Your task to perform on an android device: turn on translation in the chrome app Image 0: 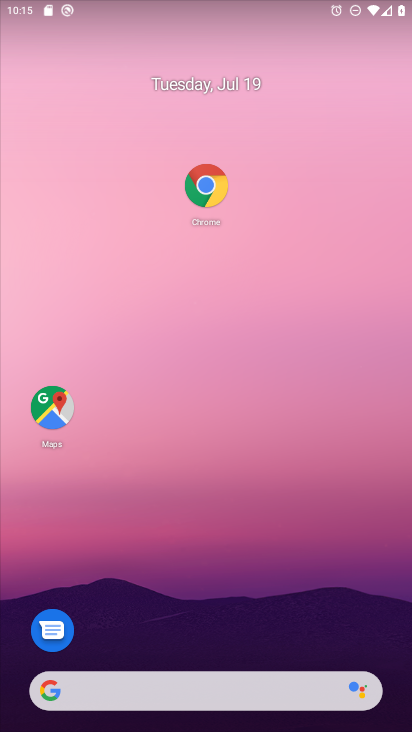
Step 0: drag from (124, 577) to (87, 139)
Your task to perform on an android device: turn on translation in the chrome app Image 1: 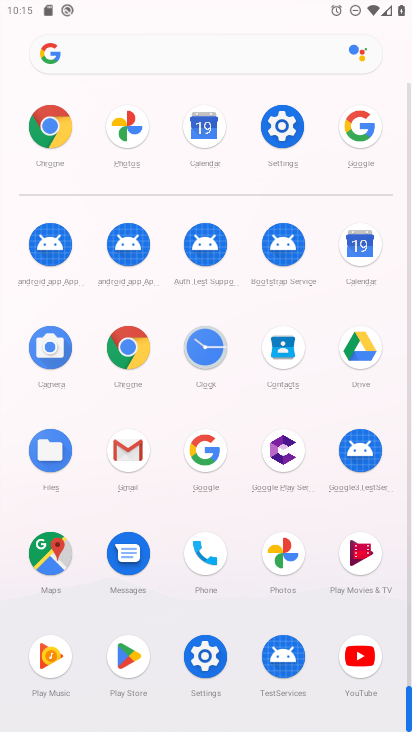
Step 1: click (133, 363)
Your task to perform on an android device: turn on translation in the chrome app Image 2: 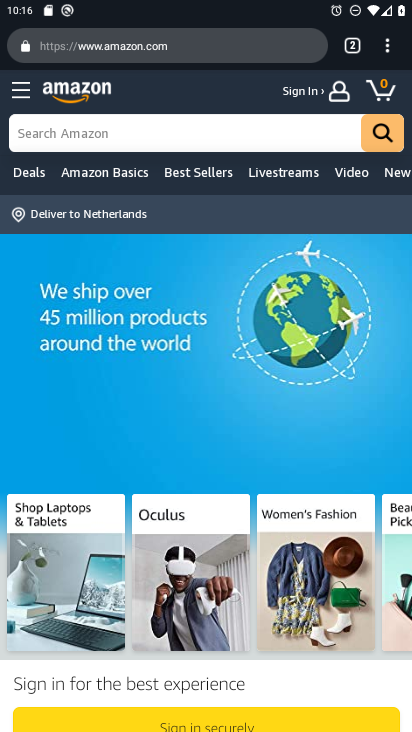
Step 2: click (384, 49)
Your task to perform on an android device: turn on translation in the chrome app Image 3: 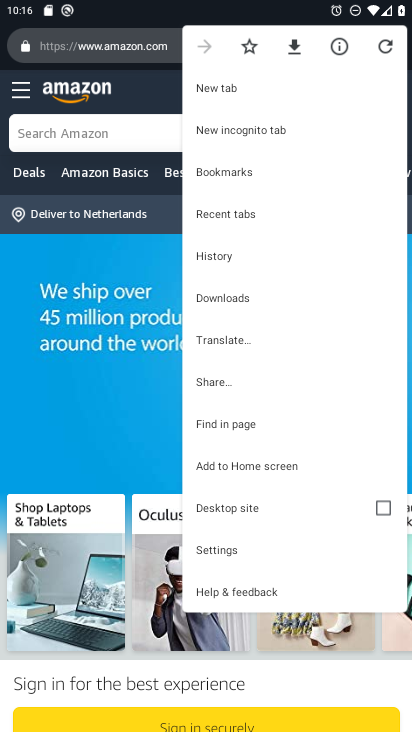
Step 3: click (261, 340)
Your task to perform on an android device: turn on translation in the chrome app Image 4: 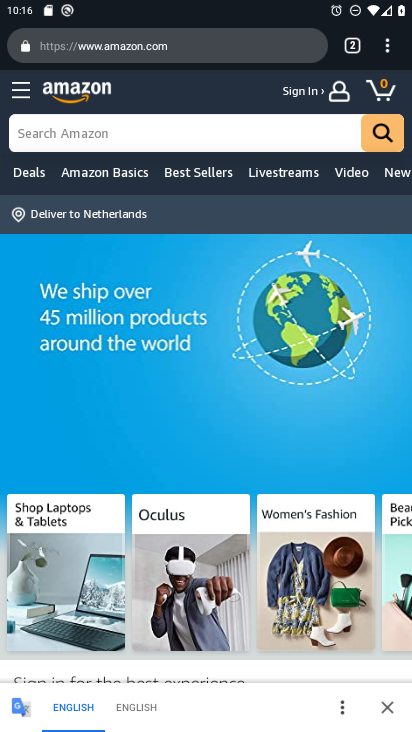
Step 4: click (337, 712)
Your task to perform on an android device: turn on translation in the chrome app Image 5: 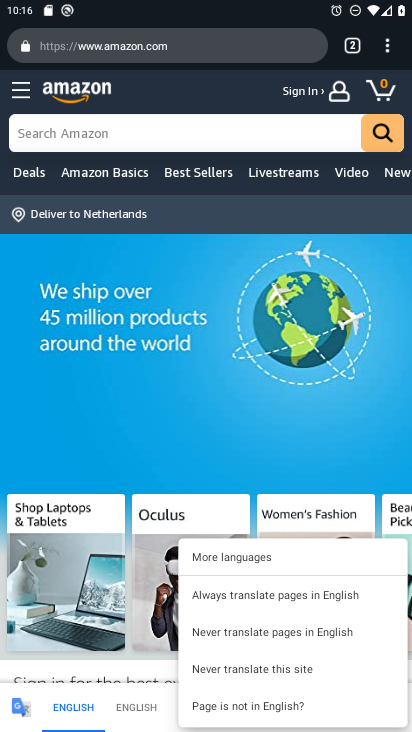
Step 5: click (262, 595)
Your task to perform on an android device: turn on translation in the chrome app Image 6: 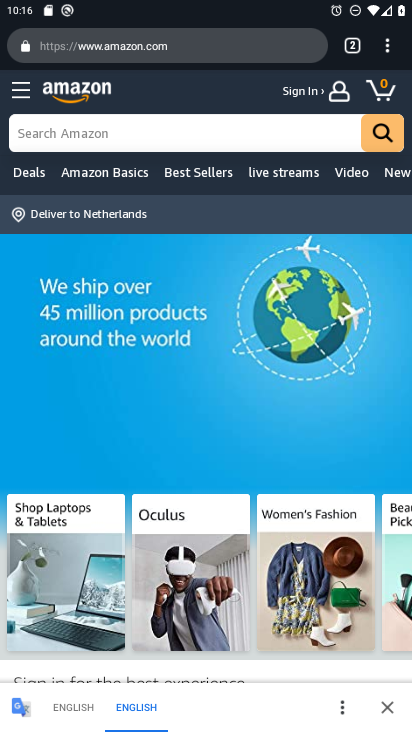
Step 6: click (390, 50)
Your task to perform on an android device: turn on translation in the chrome app Image 7: 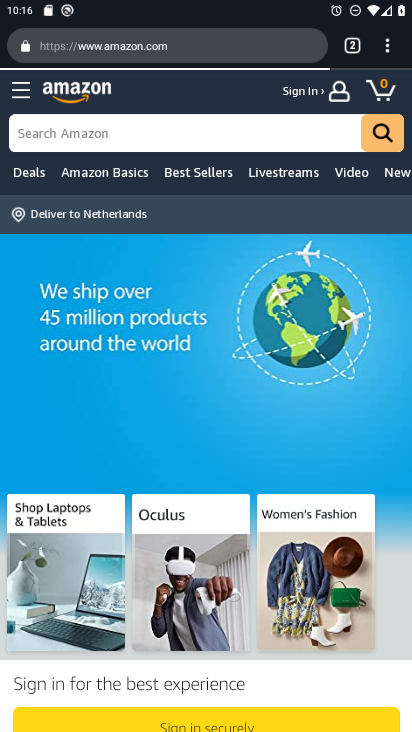
Step 7: task complete